Your task to perform on an android device: Go to Maps Image 0: 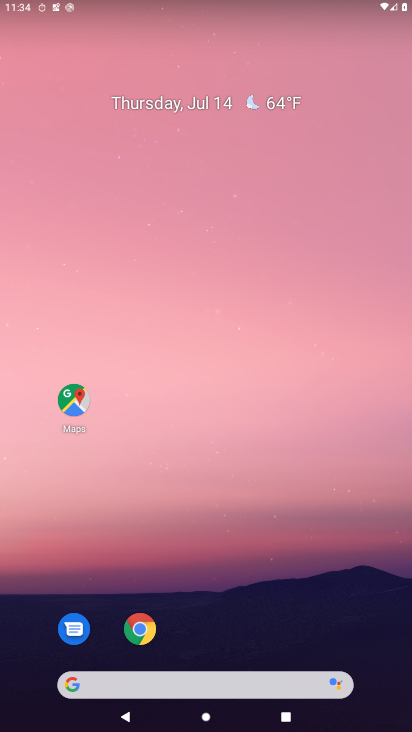
Step 0: click (80, 393)
Your task to perform on an android device: Go to Maps Image 1: 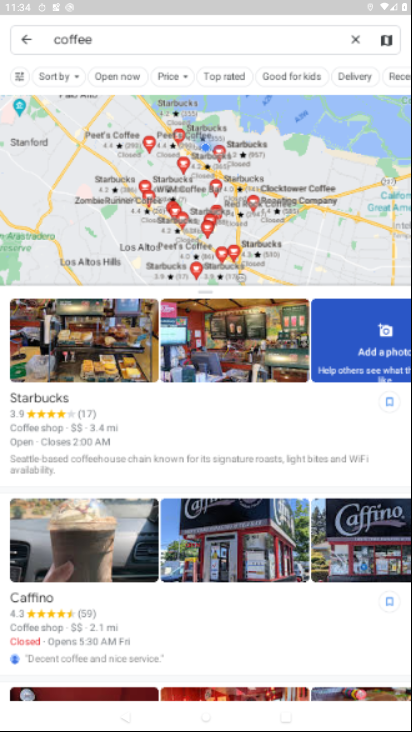
Step 1: click (356, 38)
Your task to perform on an android device: Go to Maps Image 2: 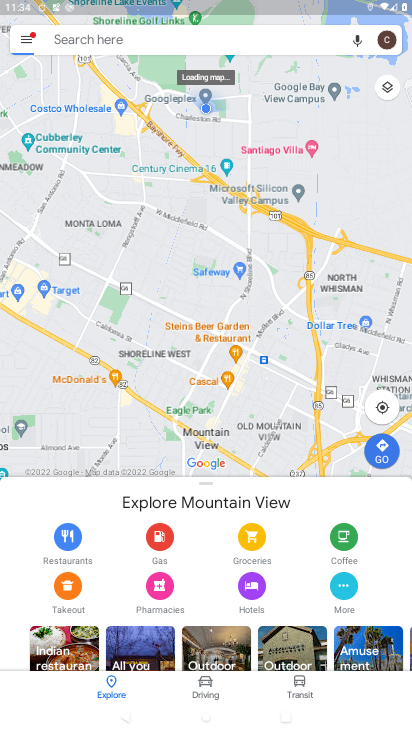
Step 2: task complete